Your task to perform on an android device: delete the emails in spam in the gmail app Image 0: 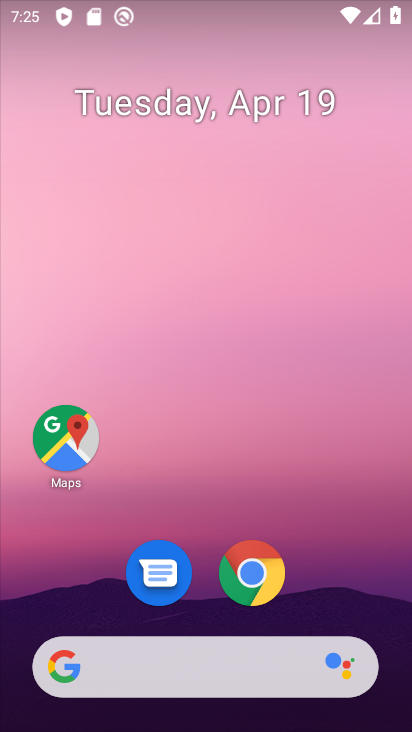
Step 0: drag from (262, 695) to (247, 283)
Your task to perform on an android device: delete the emails in spam in the gmail app Image 1: 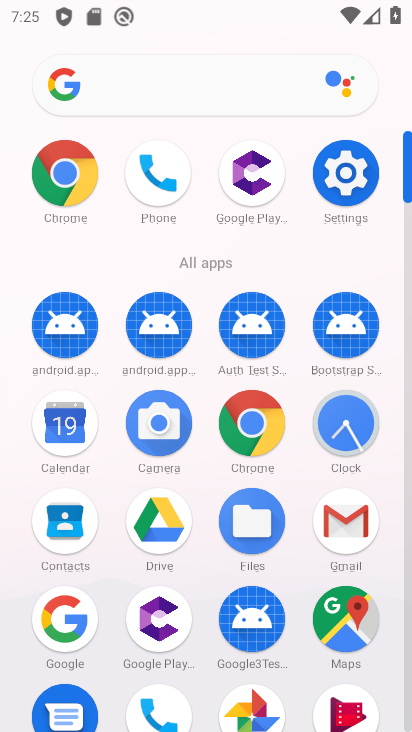
Step 1: click (332, 524)
Your task to perform on an android device: delete the emails in spam in the gmail app Image 2: 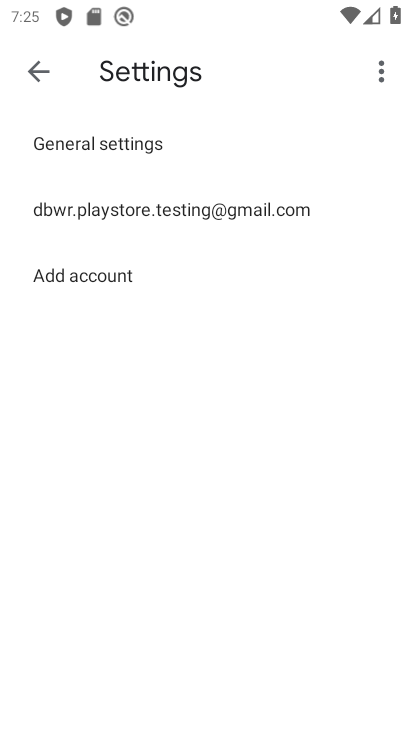
Step 2: click (163, 216)
Your task to perform on an android device: delete the emails in spam in the gmail app Image 3: 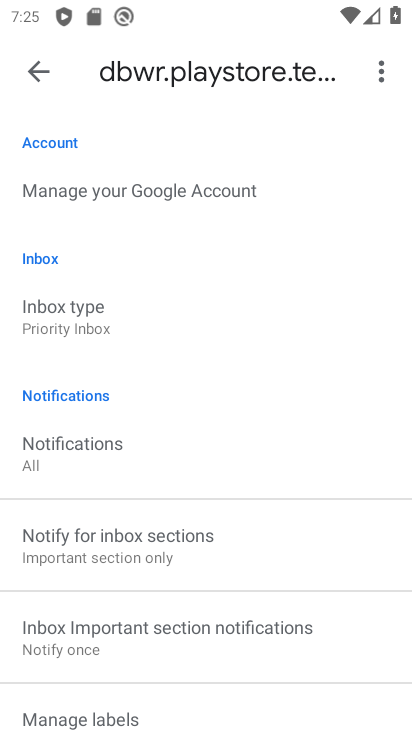
Step 3: drag from (171, 464) to (271, 240)
Your task to perform on an android device: delete the emails in spam in the gmail app Image 4: 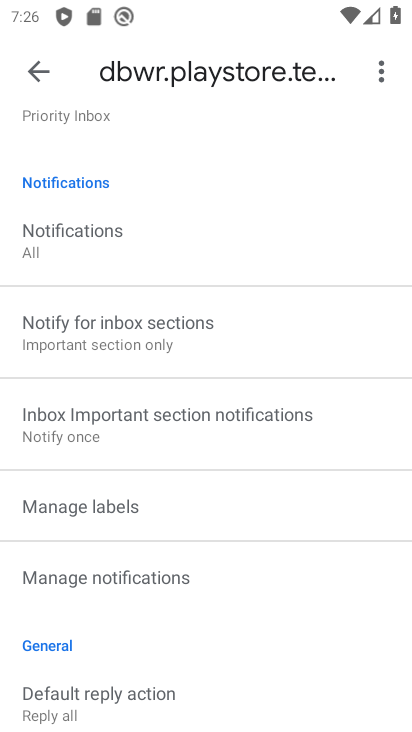
Step 4: drag from (201, 518) to (237, 408)
Your task to perform on an android device: delete the emails in spam in the gmail app Image 5: 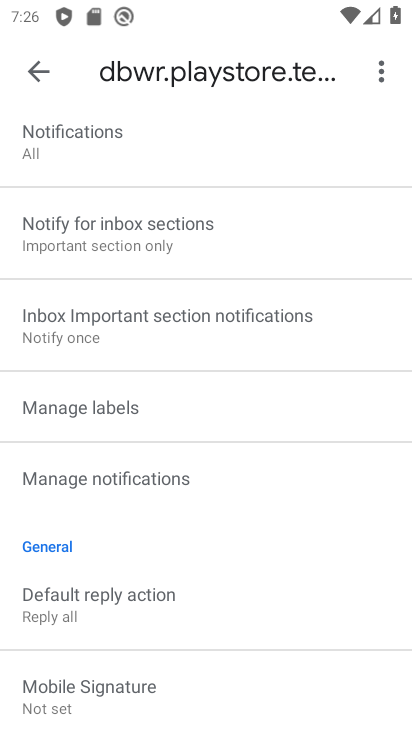
Step 5: press home button
Your task to perform on an android device: delete the emails in spam in the gmail app Image 6: 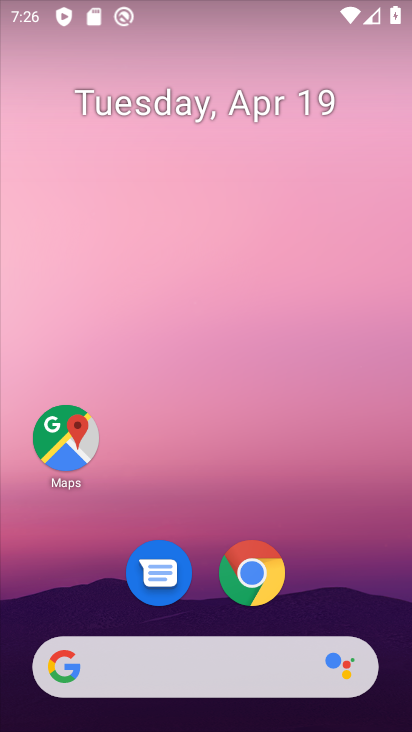
Step 6: drag from (231, 676) to (206, 346)
Your task to perform on an android device: delete the emails in spam in the gmail app Image 7: 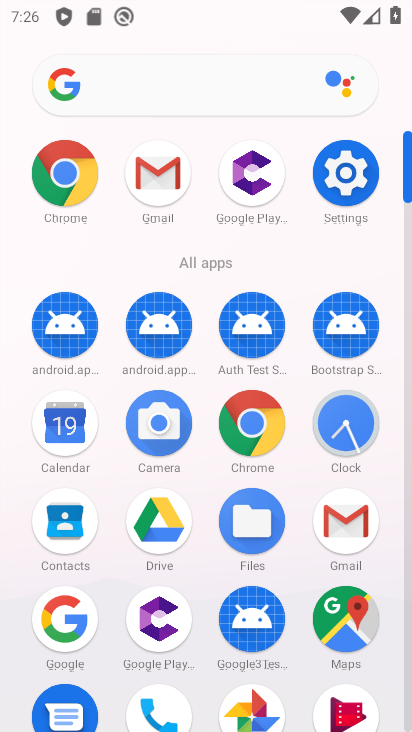
Step 7: click (158, 204)
Your task to perform on an android device: delete the emails in spam in the gmail app Image 8: 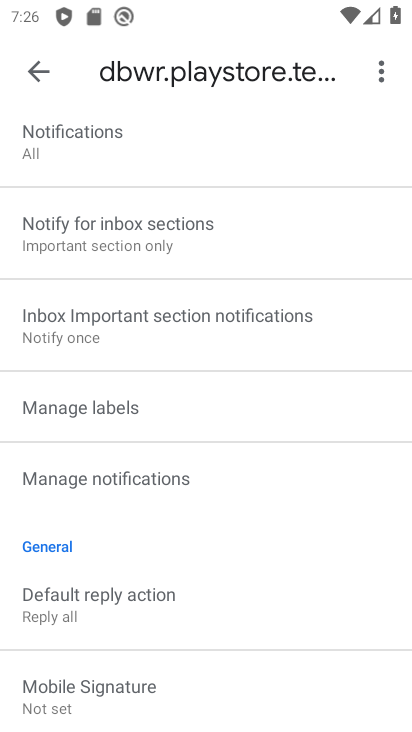
Step 8: click (40, 86)
Your task to perform on an android device: delete the emails in spam in the gmail app Image 9: 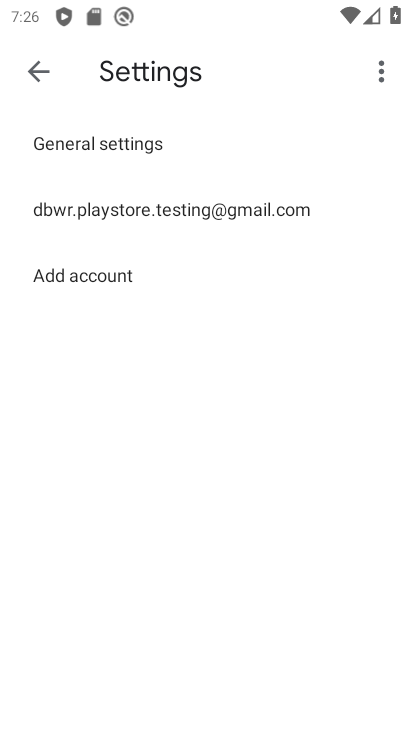
Step 9: click (40, 88)
Your task to perform on an android device: delete the emails in spam in the gmail app Image 10: 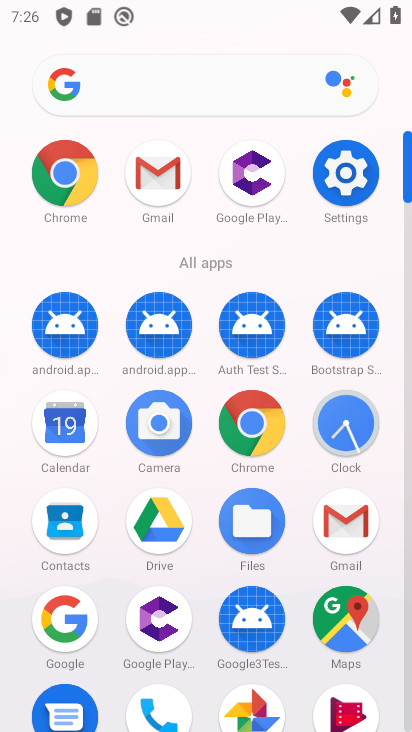
Step 10: click (145, 176)
Your task to perform on an android device: delete the emails in spam in the gmail app Image 11: 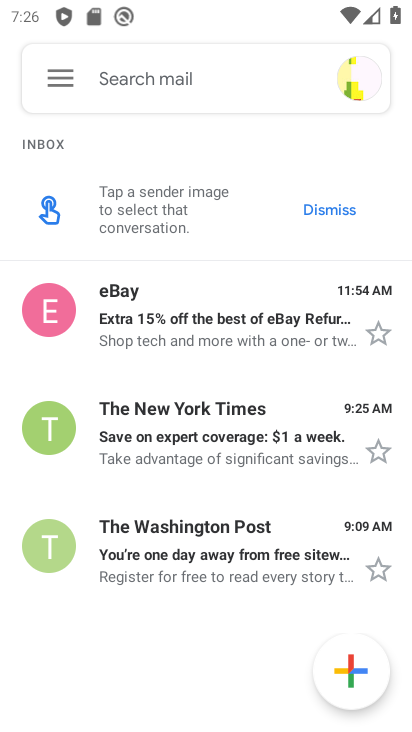
Step 11: click (64, 94)
Your task to perform on an android device: delete the emails in spam in the gmail app Image 12: 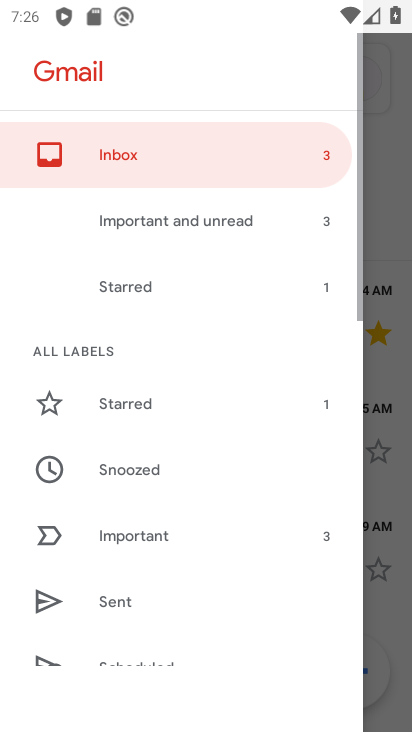
Step 12: drag from (129, 507) to (215, 322)
Your task to perform on an android device: delete the emails in spam in the gmail app Image 13: 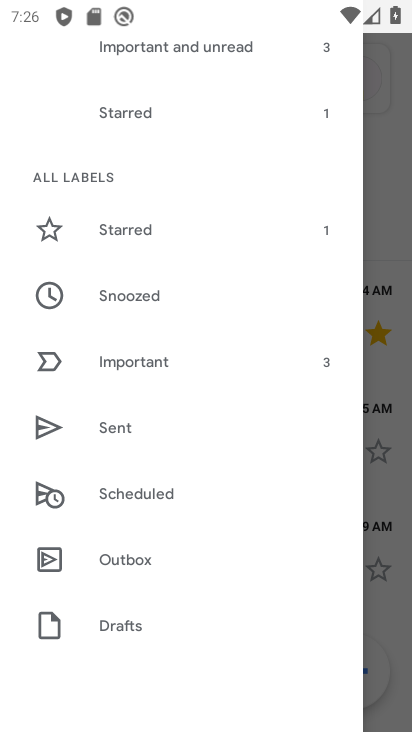
Step 13: drag from (172, 568) to (241, 329)
Your task to perform on an android device: delete the emails in spam in the gmail app Image 14: 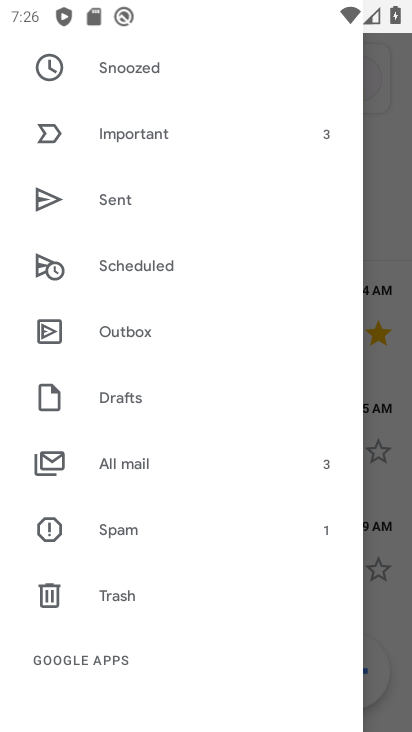
Step 14: click (124, 525)
Your task to perform on an android device: delete the emails in spam in the gmail app Image 15: 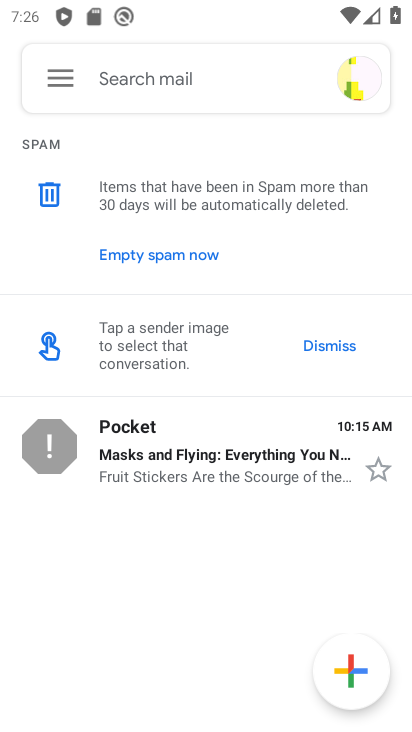
Step 15: click (52, 188)
Your task to perform on an android device: delete the emails in spam in the gmail app Image 16: 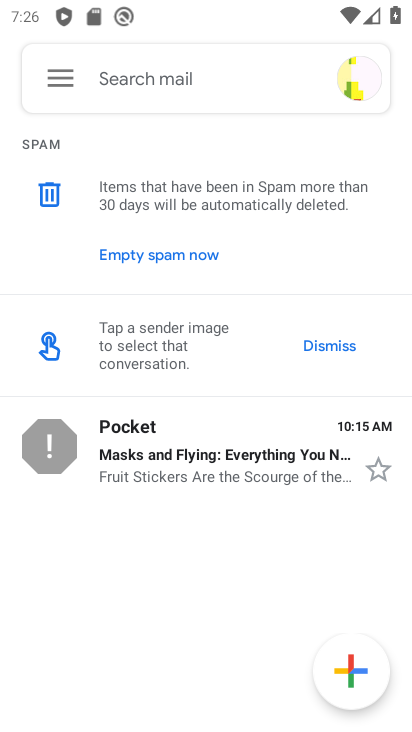
Step 16: click (152, 467)
Your task to perform on an android device: delete the emails in spam in the gmail app Image 17: 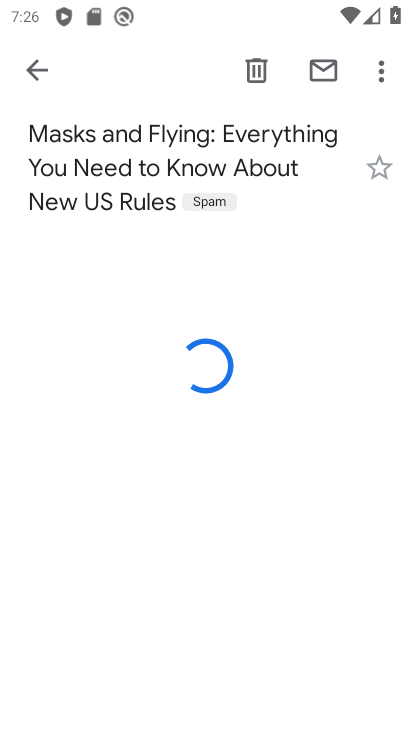
Step 17: click (251, 79)
Your task to perform on an android device: delete the emails in spam in the gmail app Image 18: 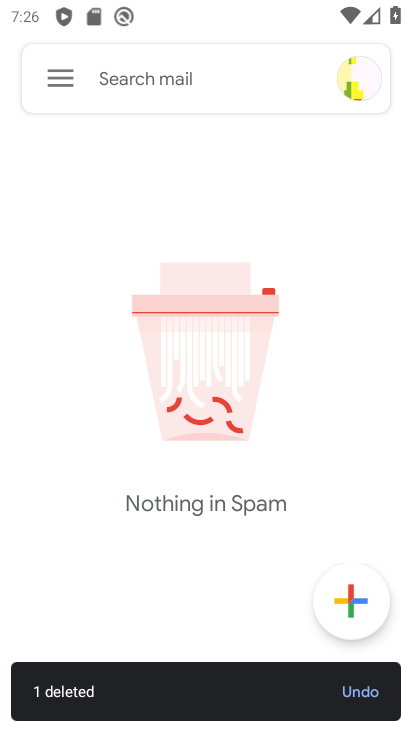
Step 18: task complete